Your task to perform on an android device: Open sound settings Image 0: 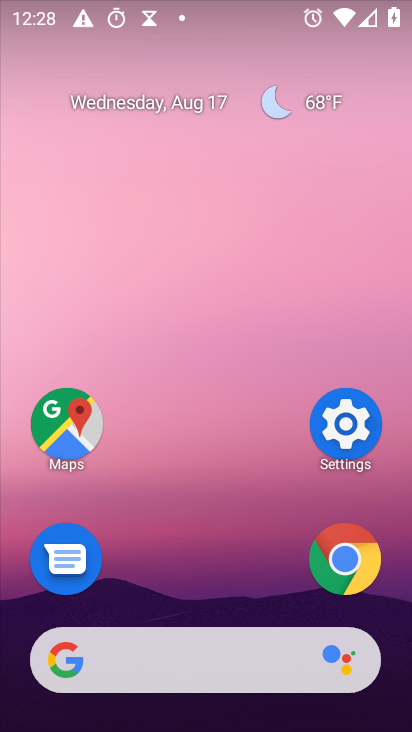
Step 0: press home button
Your task to perform on an android device: Open sound settings Image 1: 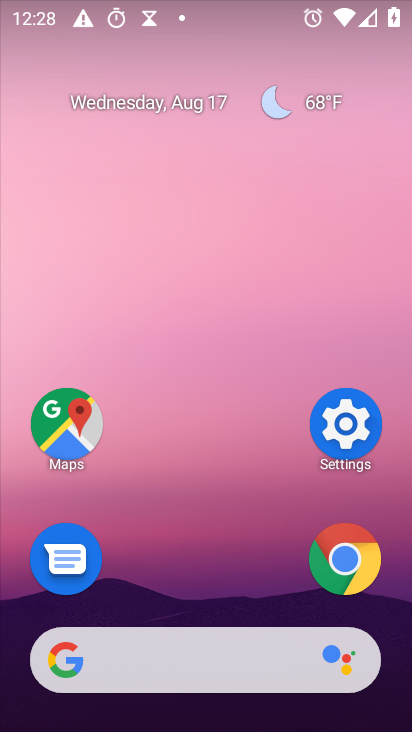
Step 1: click (337, 414)
Your task to perform on an android device: Open sound settings Image 2: 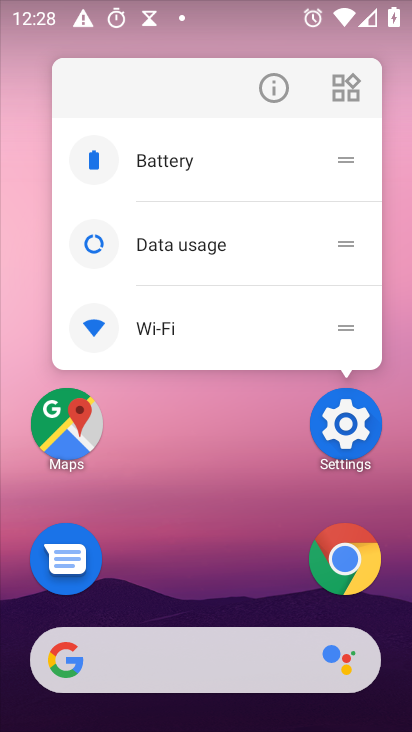
Step 2: click (340, 429)
Your task to perform on an android device: Open sound settings Image 3: 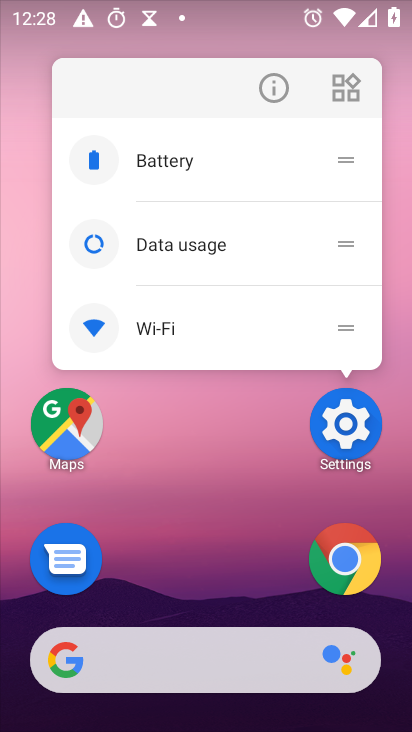
Step 3: click (349, 434)
Your task to perform on an android device: Open sound settings Image 4: 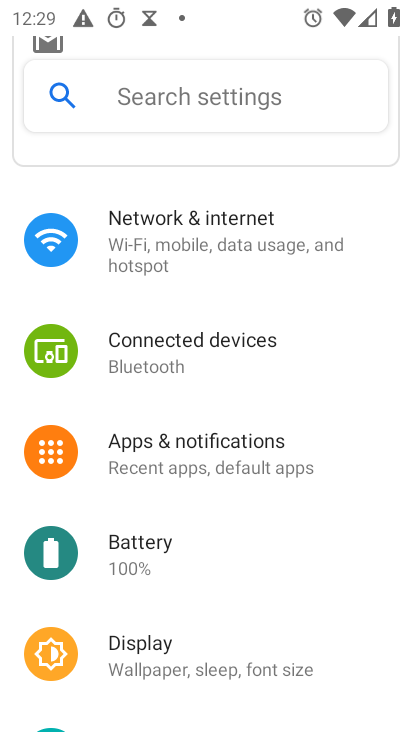
Step 4: drag from (223, 612) to (314, 165)
Your task to perform on an android device: Open sound settings Image 5: 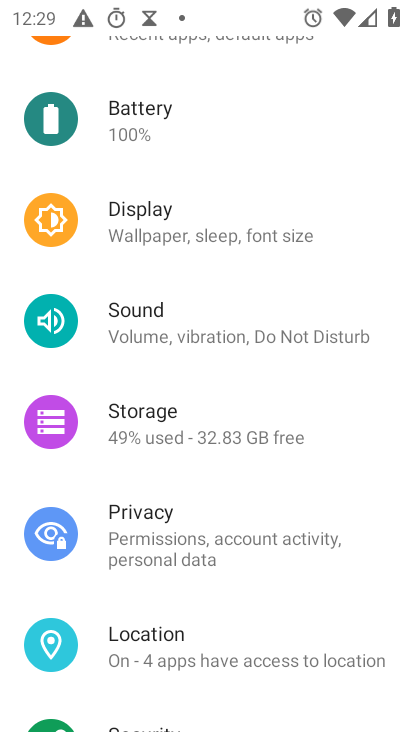
Step 5: drag from (265, 580) to (320, 145)
Your task to perform on an android device: Open sound settings Image 6: 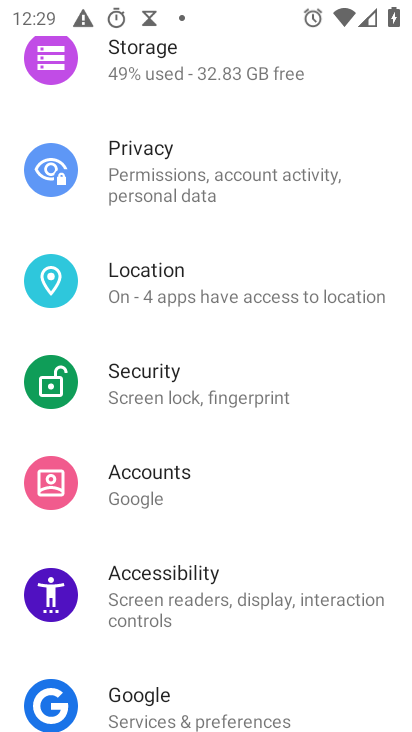
Step 6: drag from (246, 593) to (310, 123)
Your task to perform on an android device: Open sound settings Image 7: 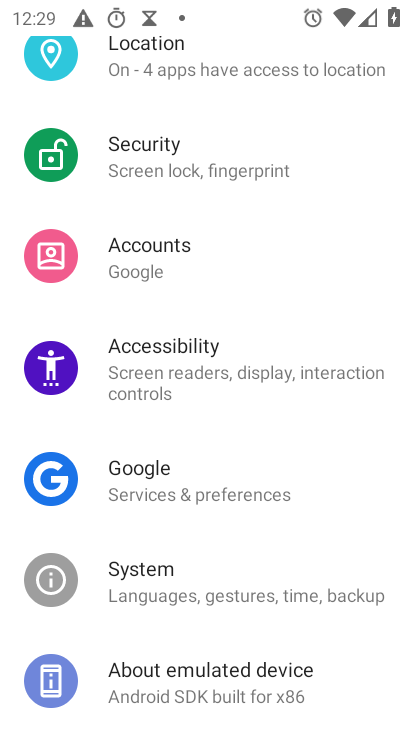
Step 7: drag from (345, 167) to (291, 618)
Your task to perform on an android device: Open sound settings Image 8: 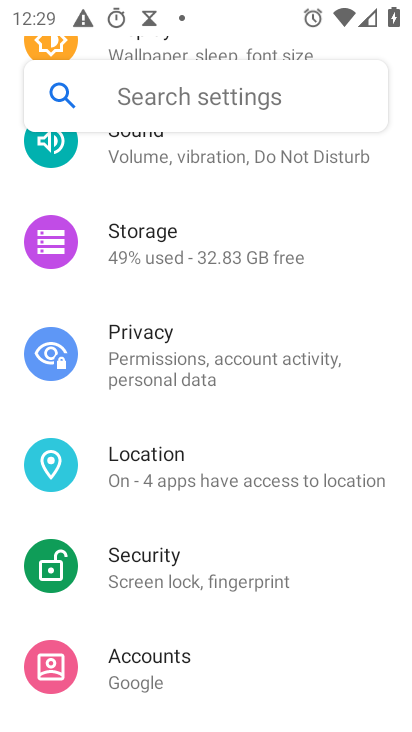
Step 8: drag from (333, 248) to (268, 638)
Your task to perform on an android device: Open sound settings Image 9: 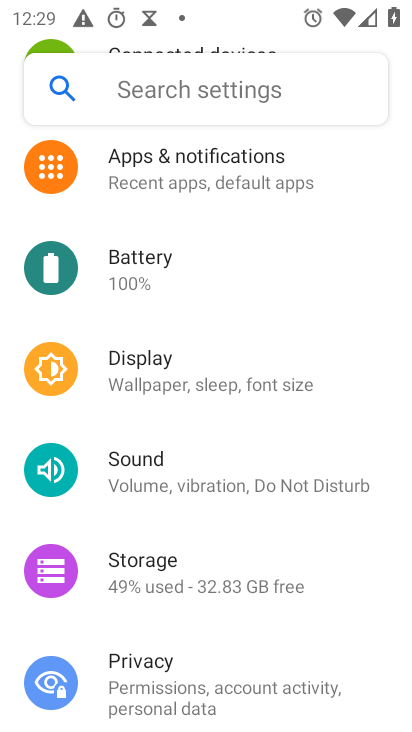
Step 9: drag from (289, 322) to (262, 556)
Your task to perform on an android device: Open sound settings Image 10: 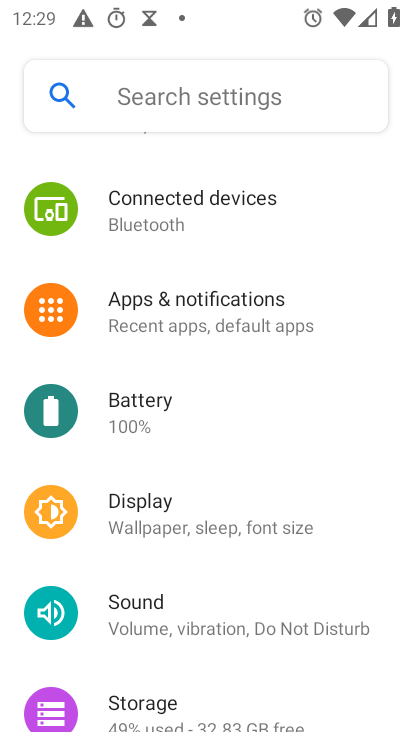
Step 10: click (162, 606)
Your task to perform on an android device: Open sound settings Image 11: 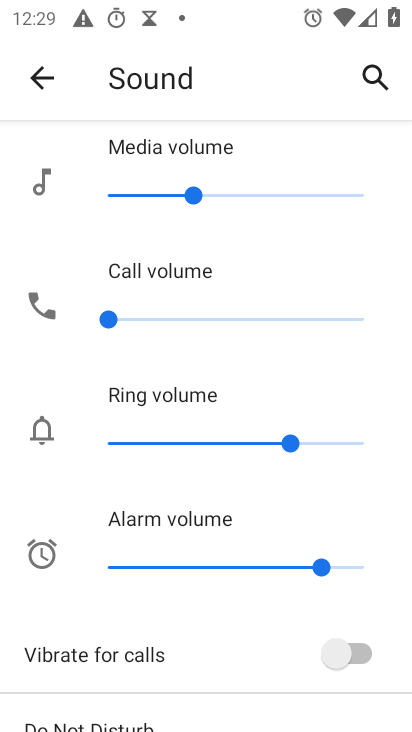
Step 11: task complete